Your task to perform on an android device: Open the Play Movies app and select the watchlist tab. Image 0: 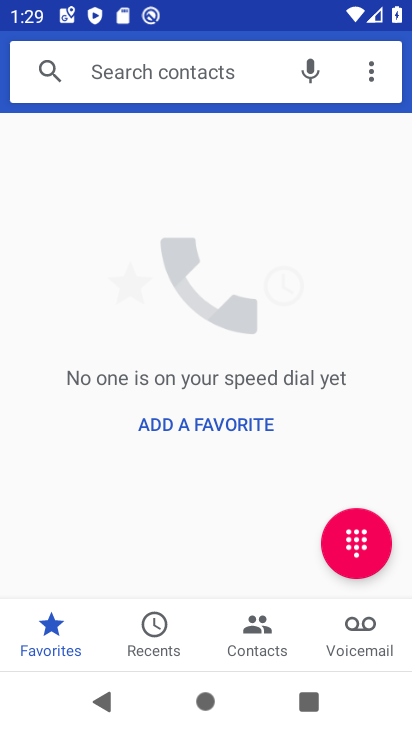
Step 0: press home button
Your task to perform on an android device: Open the Play Movies app and select the watchlist tab. Image 1: 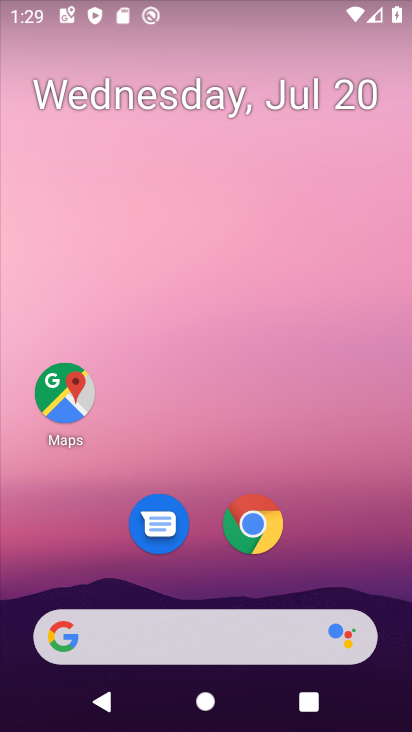
Step 1: drag from (327, 483) to (300, 34)
Your task to perform on an android device: Open the Play Movies app and select the watchlist tab. Image 2: 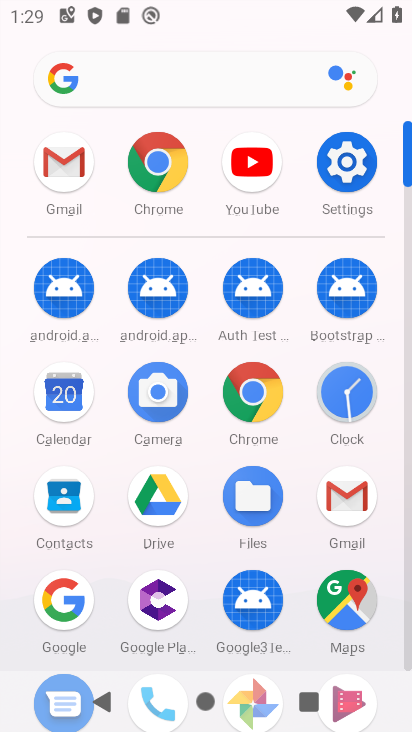
Step 2: drag from (301, 430) to (291, 99)
Your task to perform on an android device: Open the Play Movies app and select the watchlist tab. Image 3: 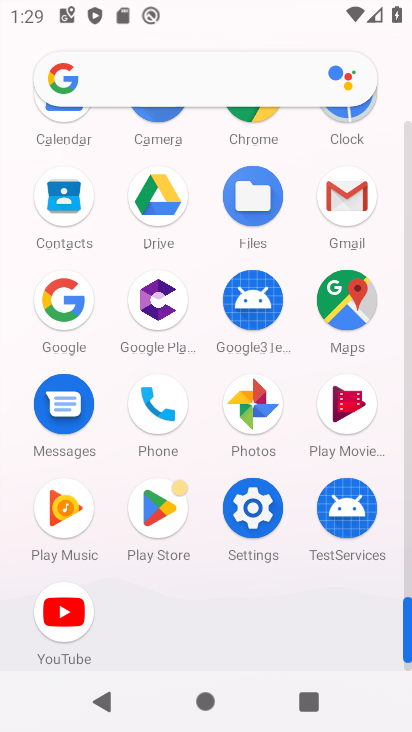
Step 3: click (353, 398)
Your task to perform on an android device: Open the Play Movies app and select the watchlist tab. Image 4: 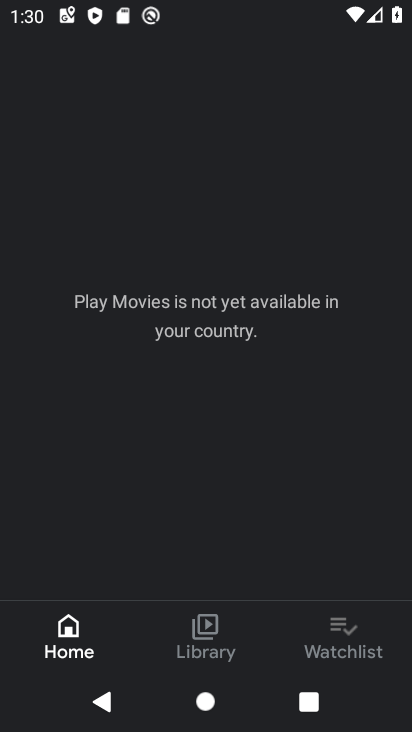
Step 4: click (358, 642)
Your task to perform on an android device: Open the Play Movies app and select the watchlist tab. Image 5: 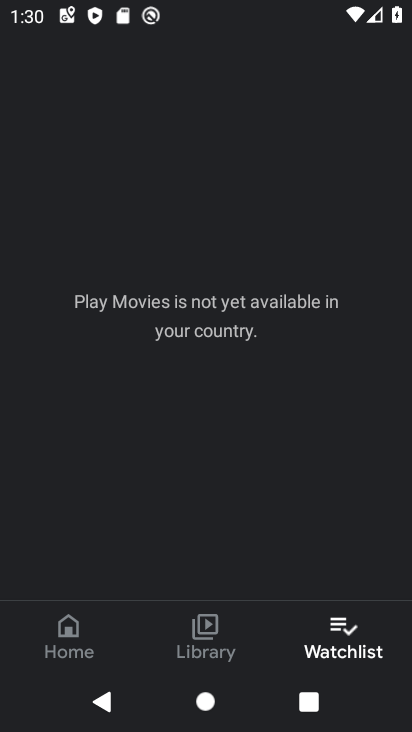
Step 5: task complete